Your task to perform on an android device: snooze an email in the gmail app Image 0: 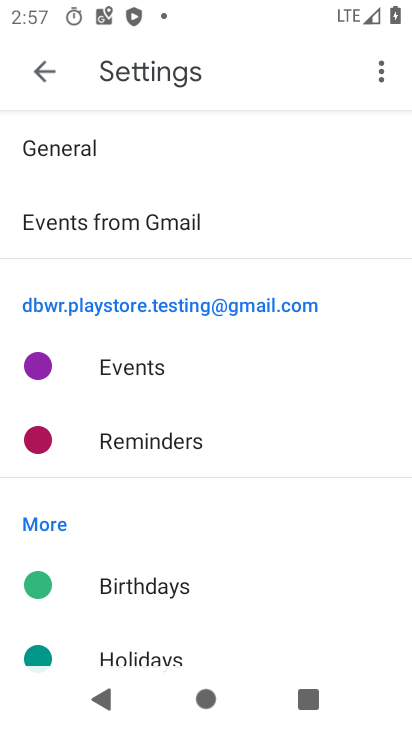
Step 0: press home button
Your task to perform on an android device: snooze an email in the gmail app Image 1: 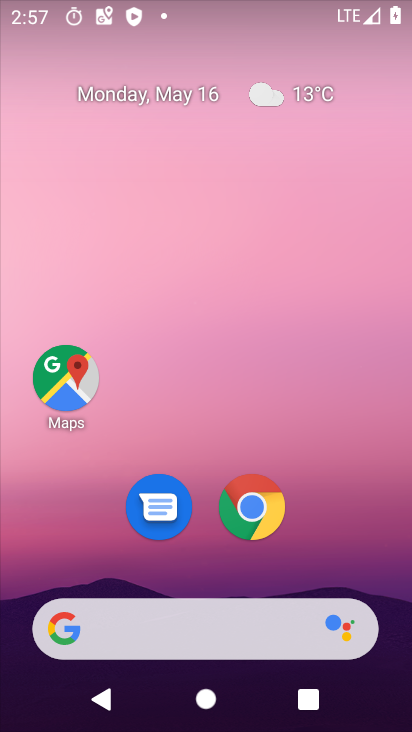
Step 1: drag from (370, 558) to (354, 142)
Your task to perform on an android device: snooze an email in the gmail app Image 2: 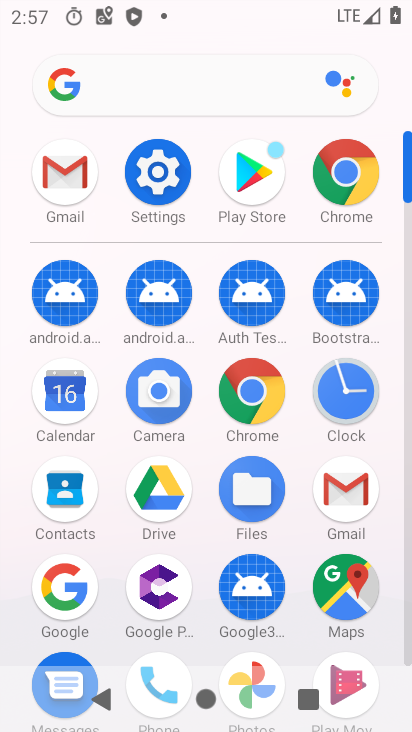
Step 2: click (356, 500)
Your task to perform on an android device: snooze an email in the gmail app Image 3: 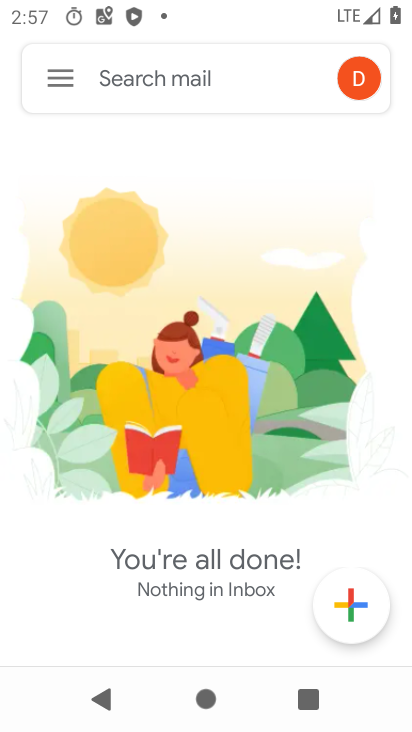
Step 3: click (53, 82)
Your task to perform on an android device: snooze an email in the gmail app Image 4: 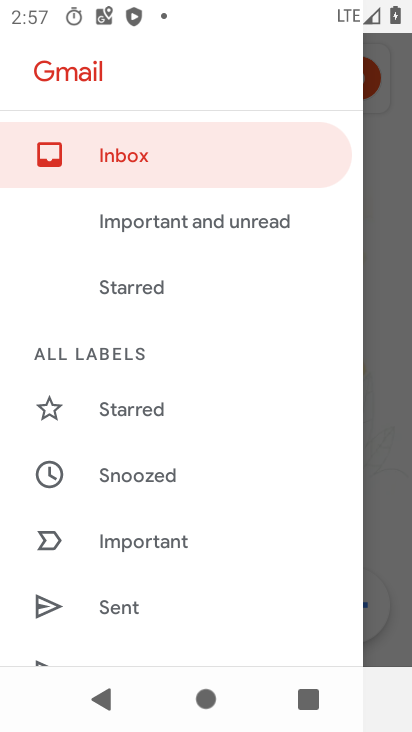
Step 4: drag from (287, 577) to (289, 386)
Your task to perform on an android device: snooze an email in the gmail app Image 5: 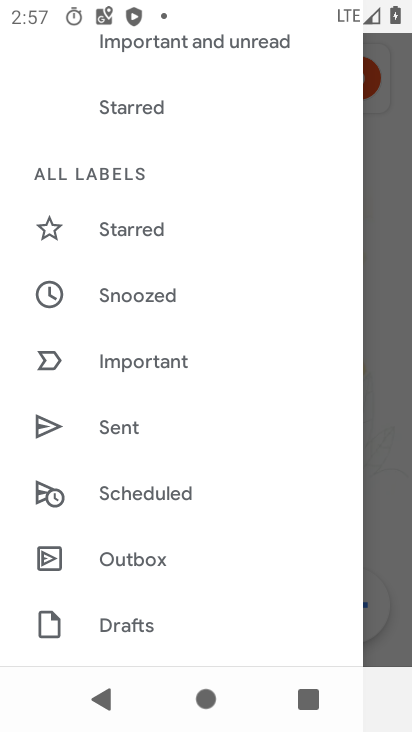
Step 5: drag from (288, 602) to (278, 444)
Your task to perform on an android device: snooze an email in the gmail app Image 6: 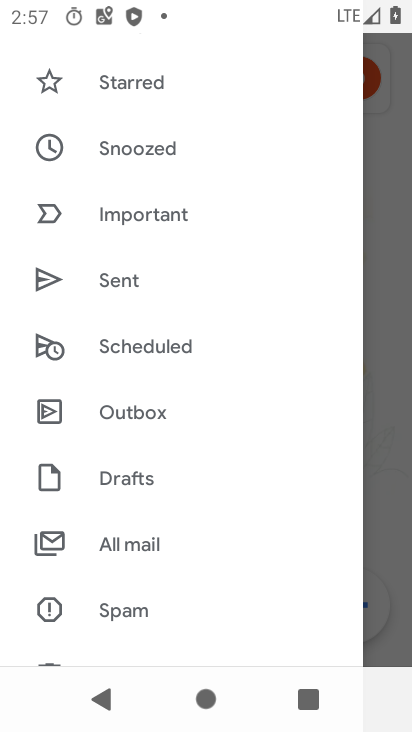
Step 6: drag from (271, 563) to (291, 338)
Your task to perform on an android device: snooze an email in the gmail app Image 7: 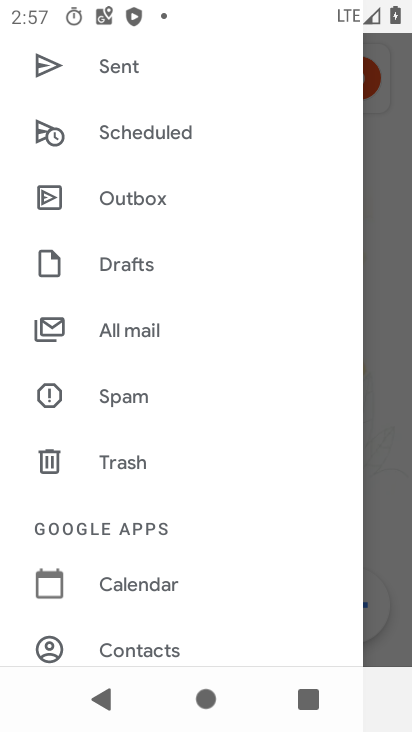
Step 7: drag from (293, 635) to (302, 373)
Your task to perform on an android device: snooze an email in the gmail app Image 8: 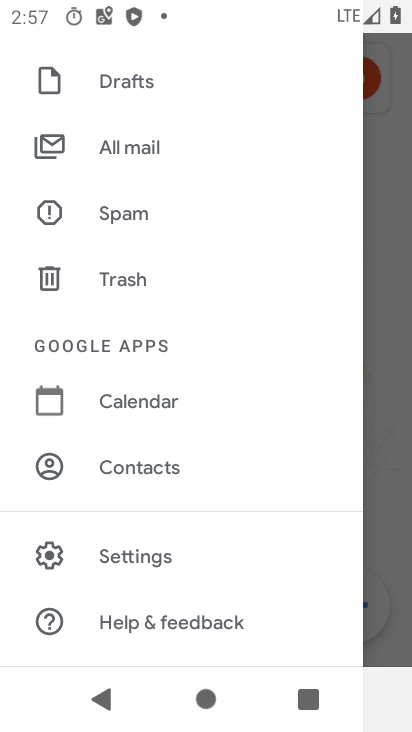
Step 8: drag from (290, 264) to (270, 467)
Your task to perform on an android device: snooze an email in the gmail app Image 9: 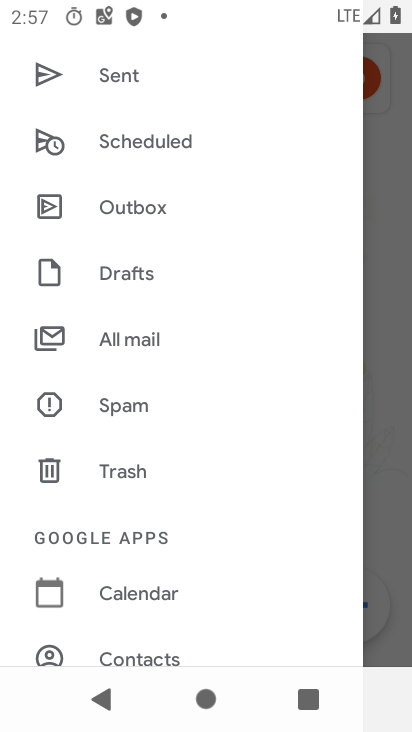
Step 9: drag from (253, 234) to (274, 398)
Your task to perform on an android device: snooze an email in the gmail app Image 10: 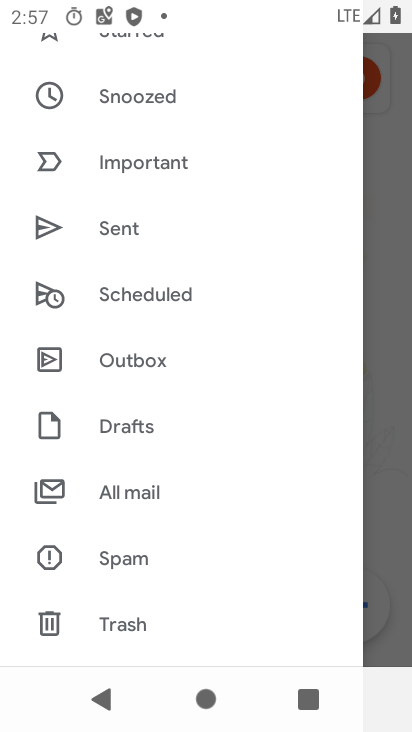
Step 10: drag from (278, 166) to (256, 349)
Your task to perform on an android device: snooze an email in the gmail app Image 11: 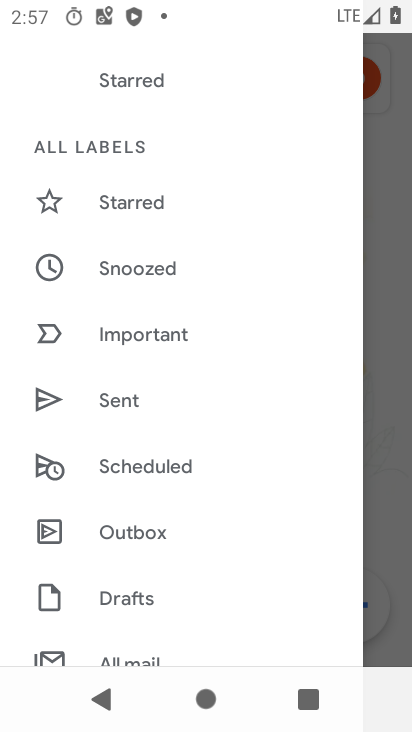
Step 11: click (162, 280)
Your task to perform on an android device: snooze an email in the gmail app Image 12: 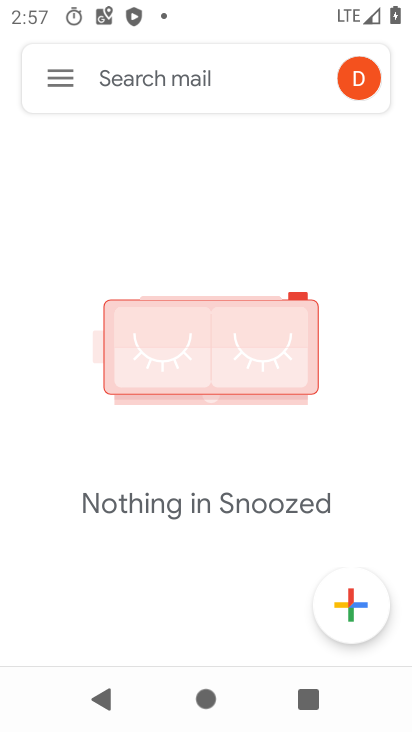
Step 12: task complete